Your task to perform on an android device: turn pop-ups on in chrome Image 0: 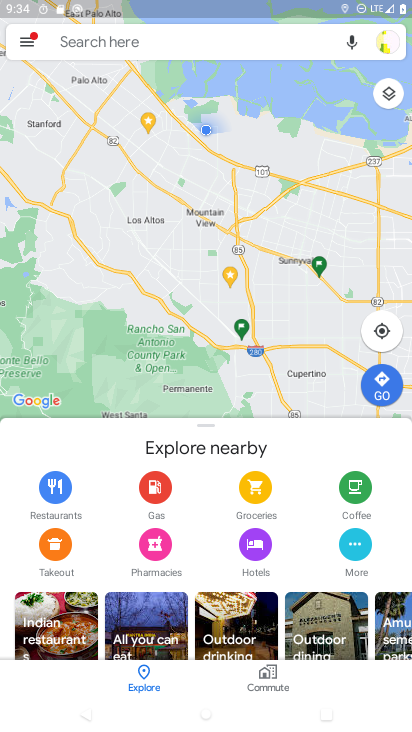
Step 0: press home button
Your task to perform on an android device: turn pop-ups on in chrome Image 1: 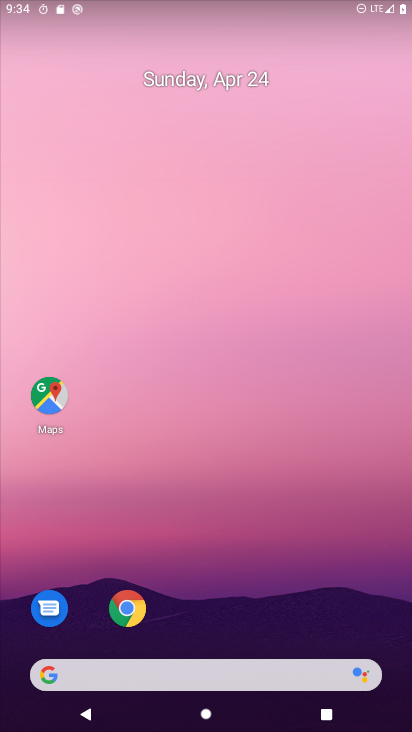
Step 1: click (125, 594)
Your task to perform on an android device: turn pop-ups on in chrome Image 2: 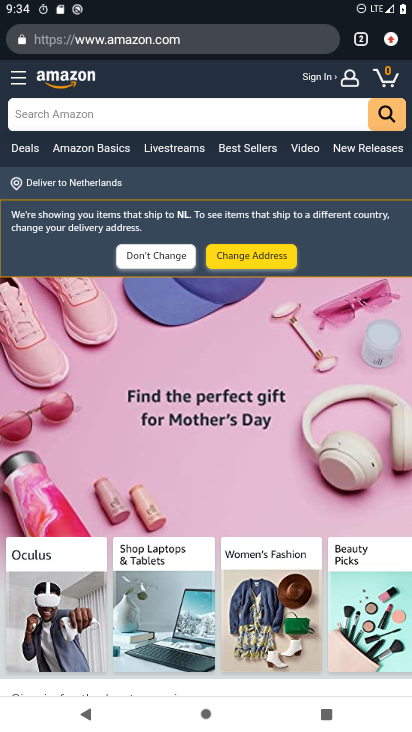
Step 2: click (390, 42)
Your task to perform on an android device: turn pop-ups on in chrome Image 3: 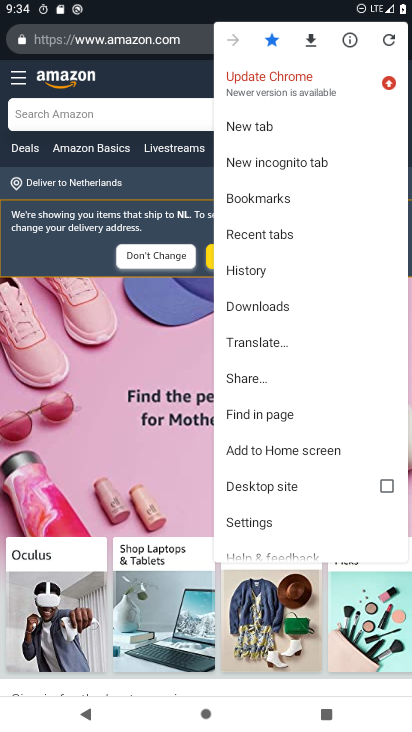
Step 3: click (294, 517)
Your task to perform on an android device: turn pop-ups on in chrome Image 4: 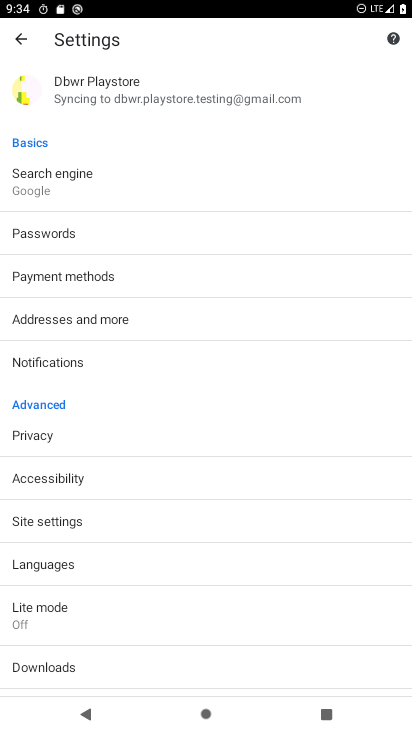
Step 4: click (294, 517)
Your task to perform on an android device: turn pop-ups on in chrome Image 5: 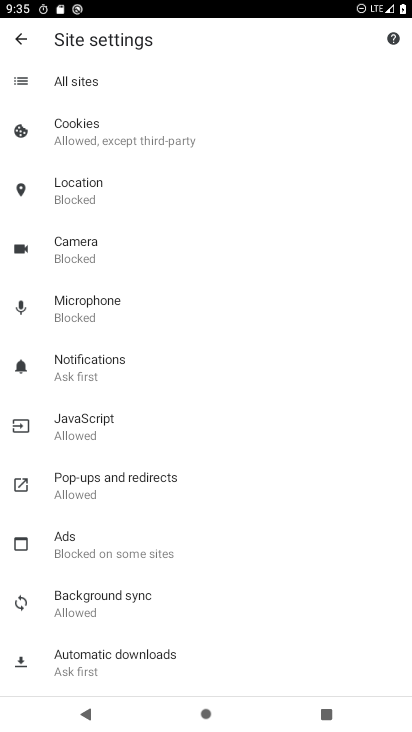
Step 5: click (209, 480)
Your task to perform on an android device: turn pop-ups on in chrome Image 6: 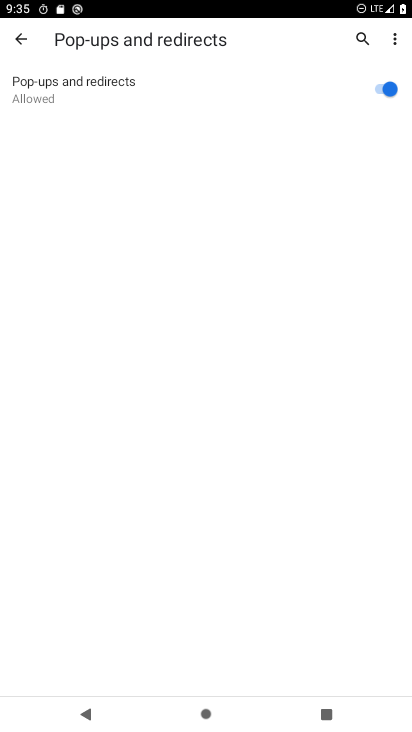
Step 6: task complete